Your task to perform on an android device: add a contact Image 0: 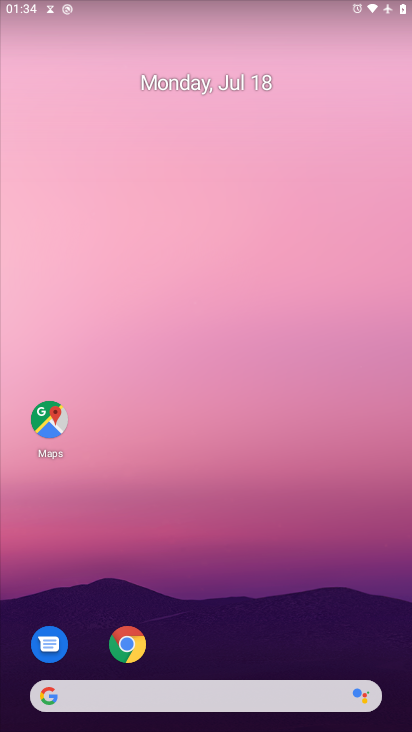
Step 0: press home button
Your task to perform on an android device: add a contact Image 1: 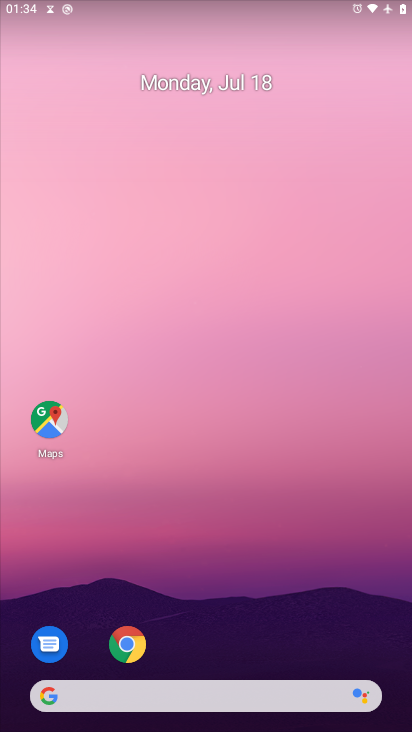
Step 1: drag from (234, 651) to (152, 3)
Your task to perform on an android device: add a contact Image 2: 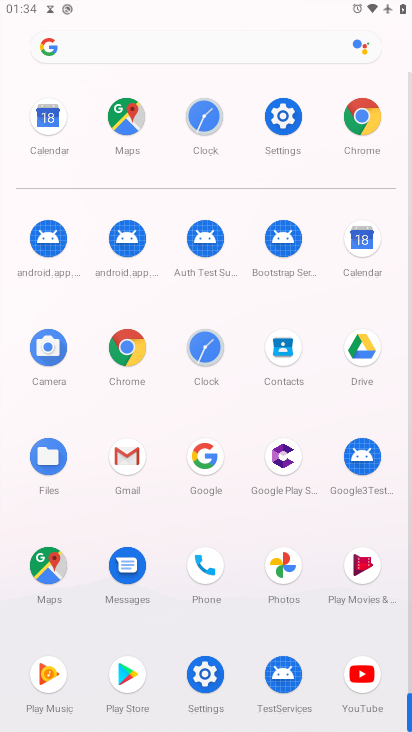
Step 2: click (284, 356)
Your task to perform on an android device: add a contact Image 3: 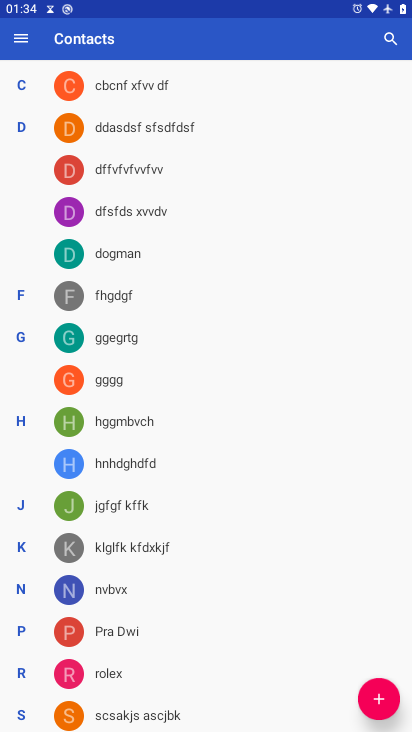
Step 3: click (383, 703)
Your task to perform on an android device: add a contact Image 4: 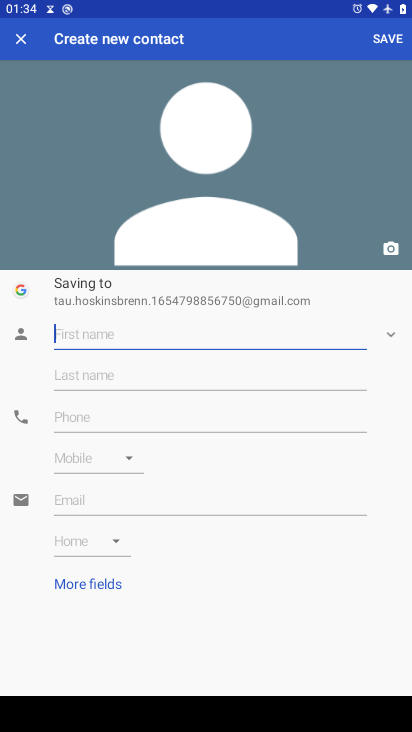
Step 4: type "nmnmnmnmn"
Your task to perform on an android device: add a contact Image 5: 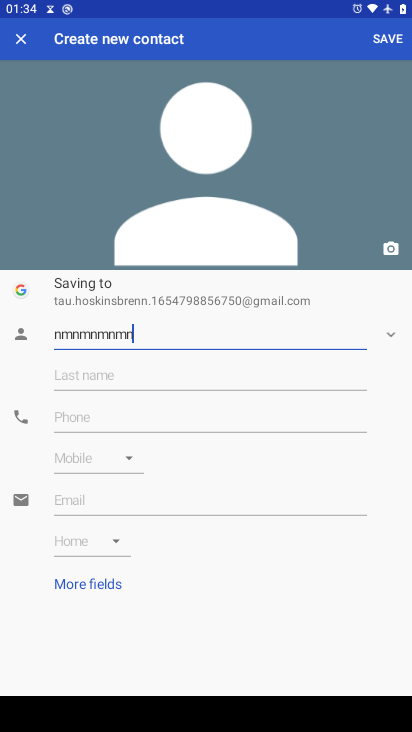
Step 5: click (134, 413)
Your task to perform on an android device: add a contact Image 6: 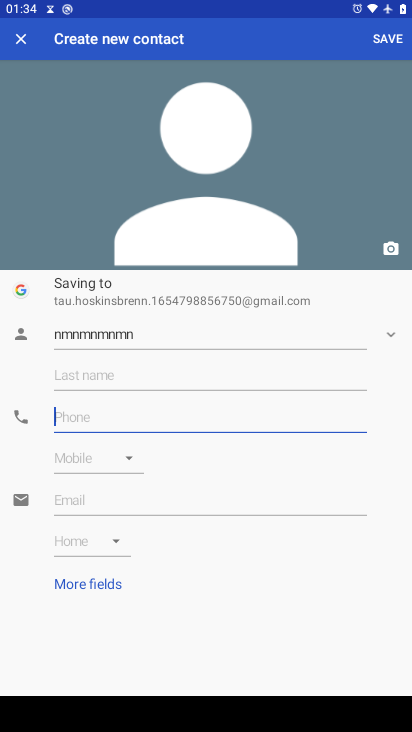
Step 6: type "67677"
Your task to perform on an android device: add a contact Image 7: 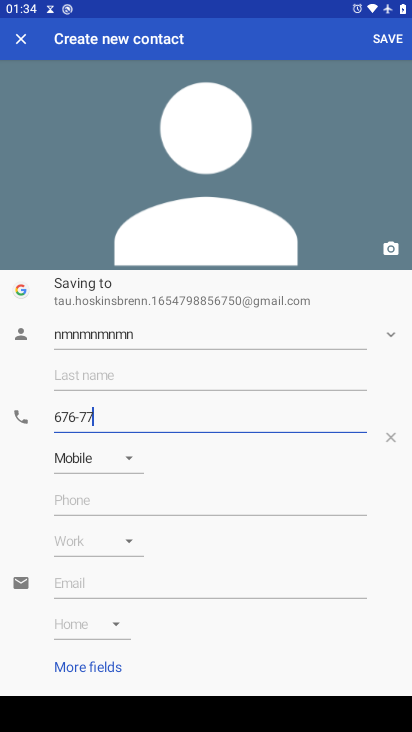
Step 7: click (397, 36)
Your task to perform on an android device: add a contact Image 8: 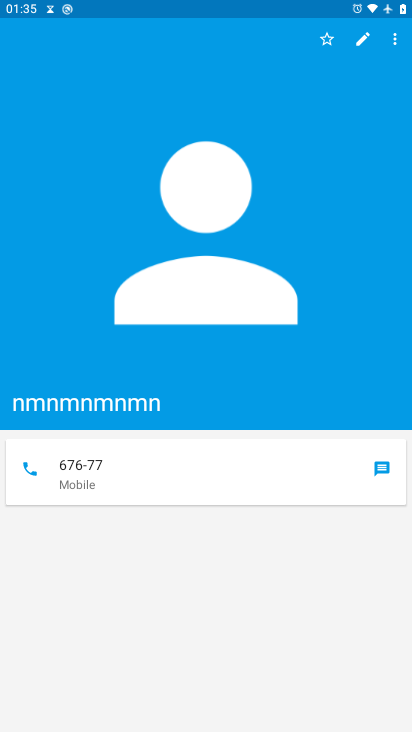
Step 8: task complete